Your task to perform on an android device: Play the last video I watched on Youtube Image 0: 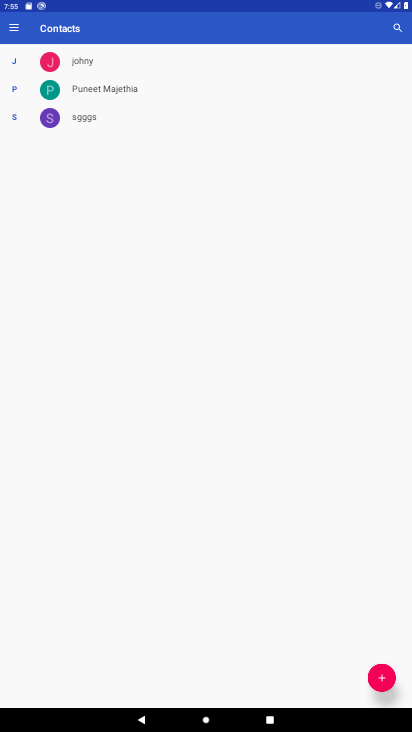
Step 0: press home button
Your task to perform on an android device: Play the last video I watched on Youtube Image 1: 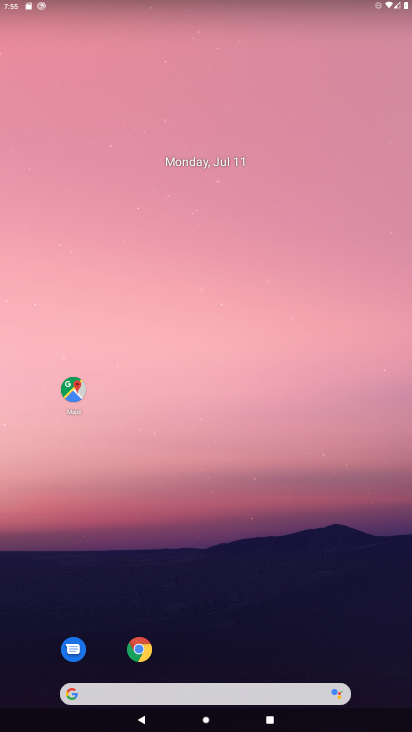
Step 1: drag from (197, 695) to (189, 53)
Your task to perform on an android device: Play the last video I watched on Youtube Image 2: 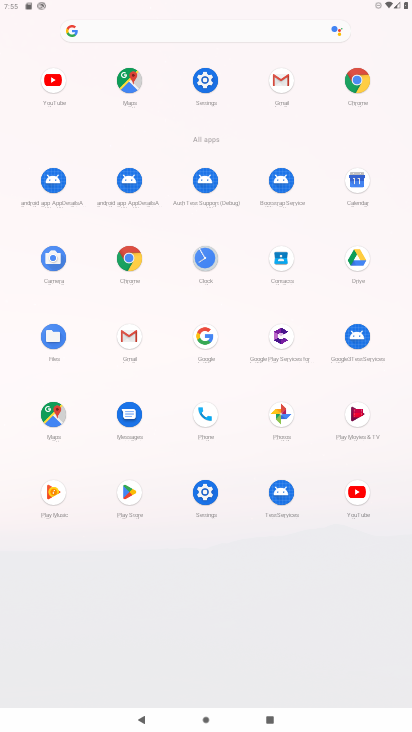
Step 2: click (356, 492)
Your task to perform on an android device: Play the last video I watched on Youtube Image 3: 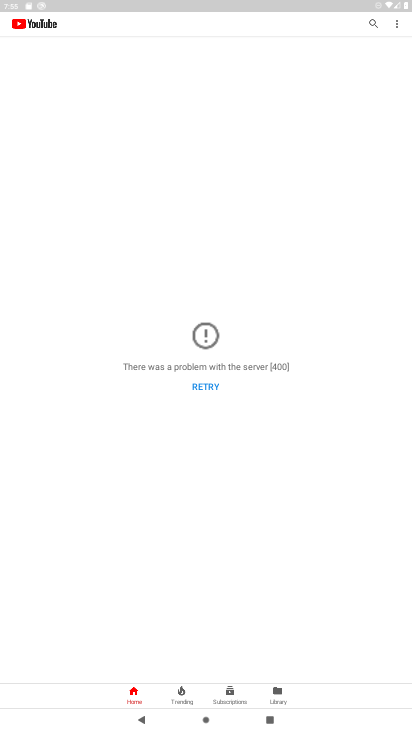
Step 3: click (286, 696)
Your task to perform on an android device: Play the last video I watched on Youtube Image 4: 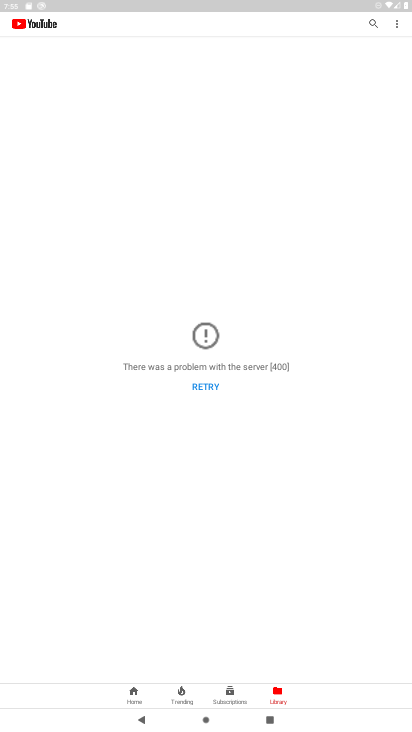
Step 4: click (199, 384)
Your task to perform on an android device: Play the last video I watched on Youtube Image 5: 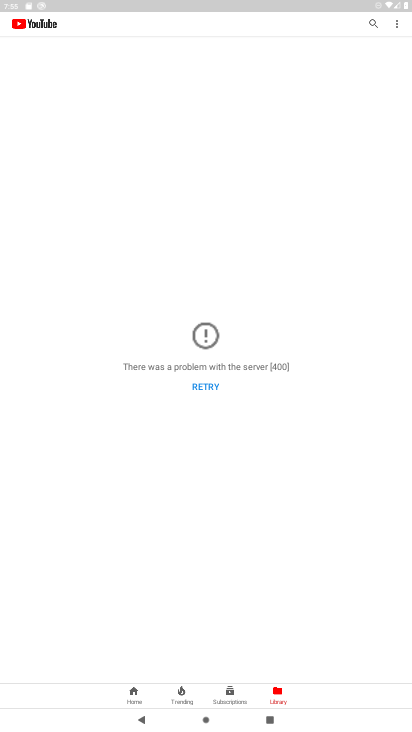
Step 5: click (199, 384)
Your task to perform on an android device: Play the last video I watched on Youtube Image 6: 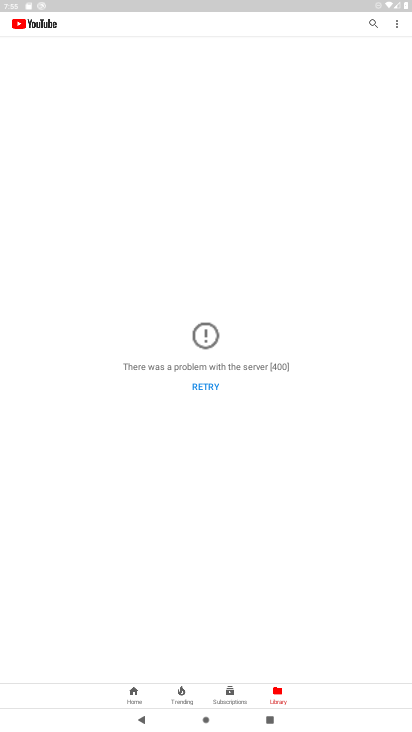
Step 6: task complete